Your task to perform on an android device: turn on the 24-hour format for clock Image 0: 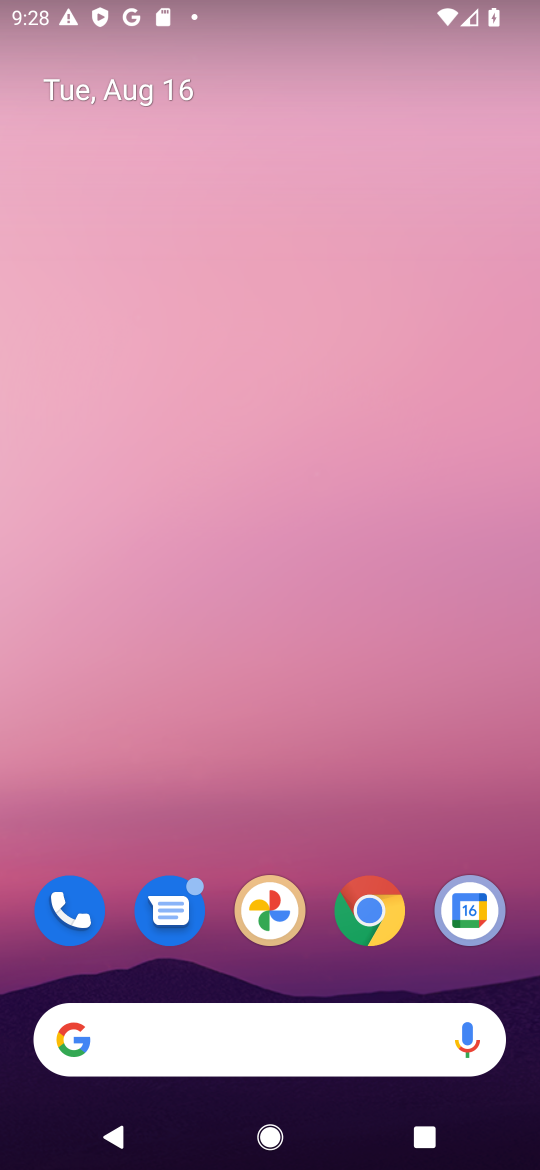
Step 0: drag from (278, 714) to (272, 0)
Your task to perform on an android device: turn on the 24-hour format for clock Image 1: 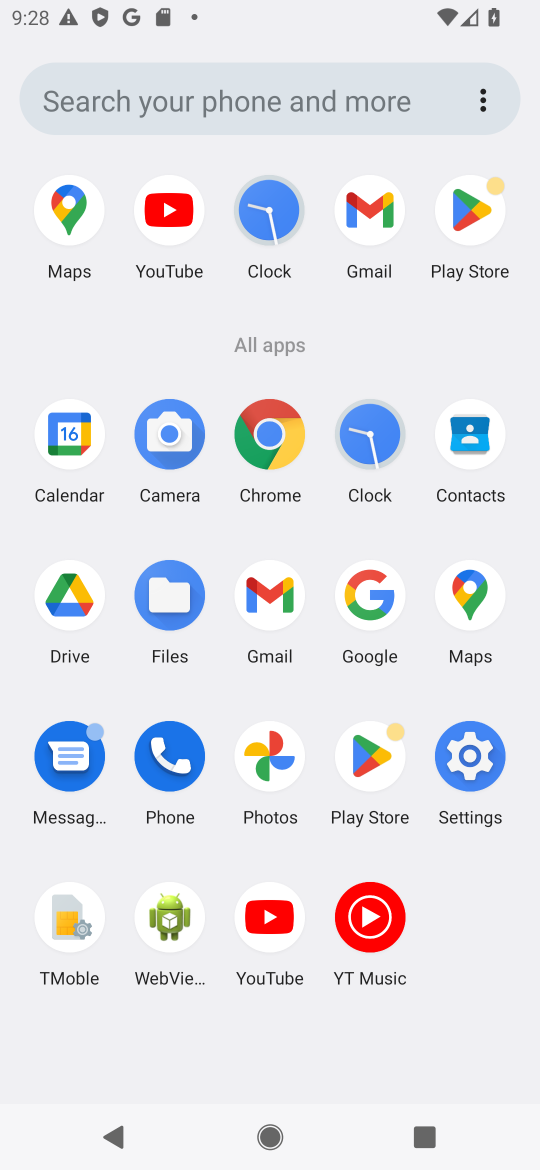
Step 1: click (272, 214)
Your task to perform on an android device: turn on the 24-hour format for clock Image 2: 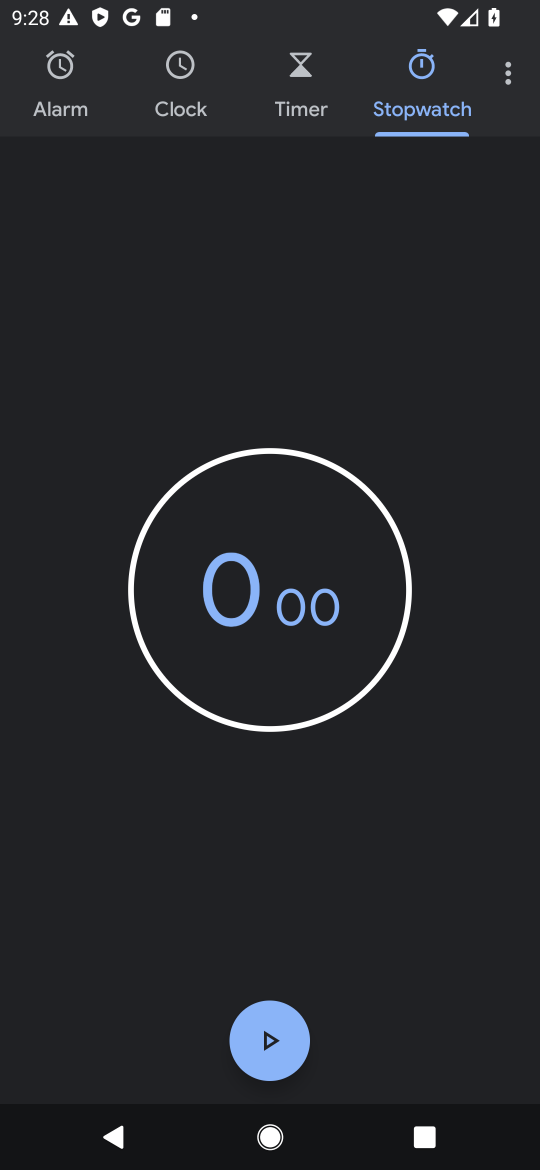
Step 2: click (512, 79)
Your task to perform on an android device: turn on the 24-hour format for clock Image 3: 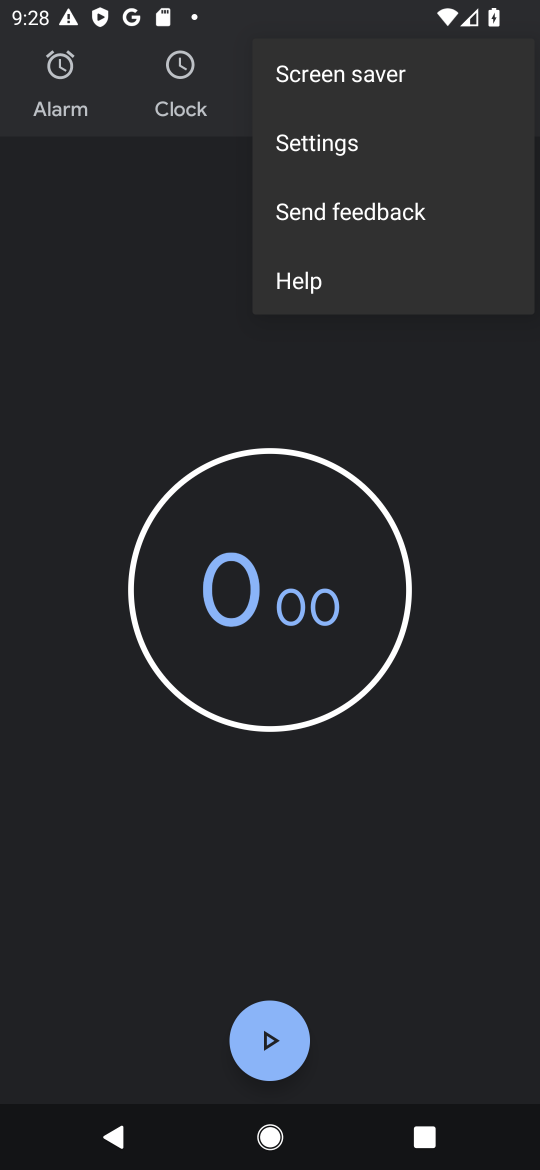
Step 3: click (371, 146)
Your task to perform on an android device: turn on the 24-hour format for clock Image 4: 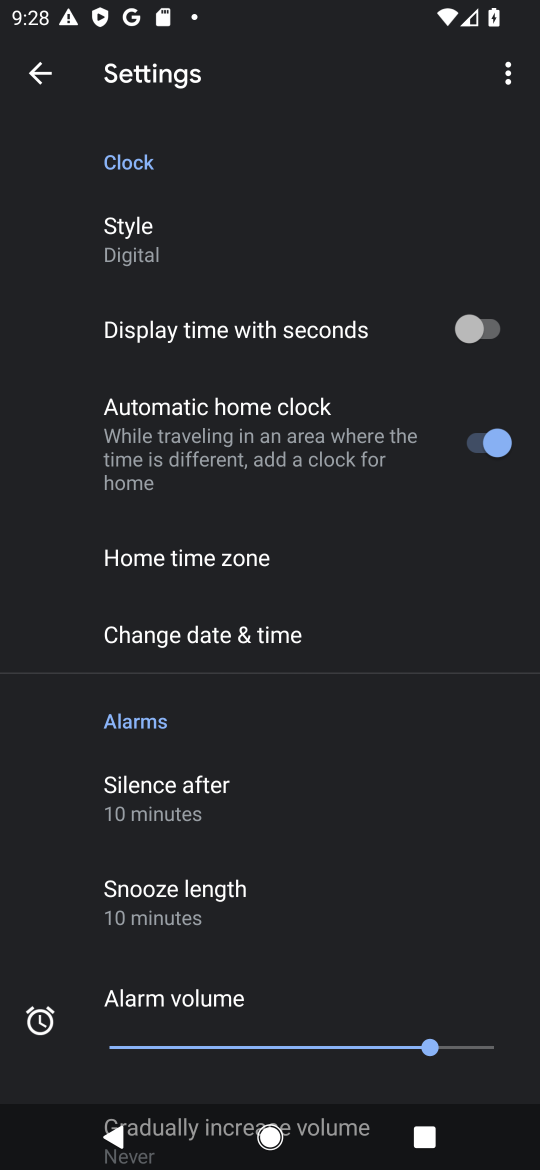
Step 4: click (321, 653)
Your task to perform on an android device: turn on the 24-hour format for clock Image 5: 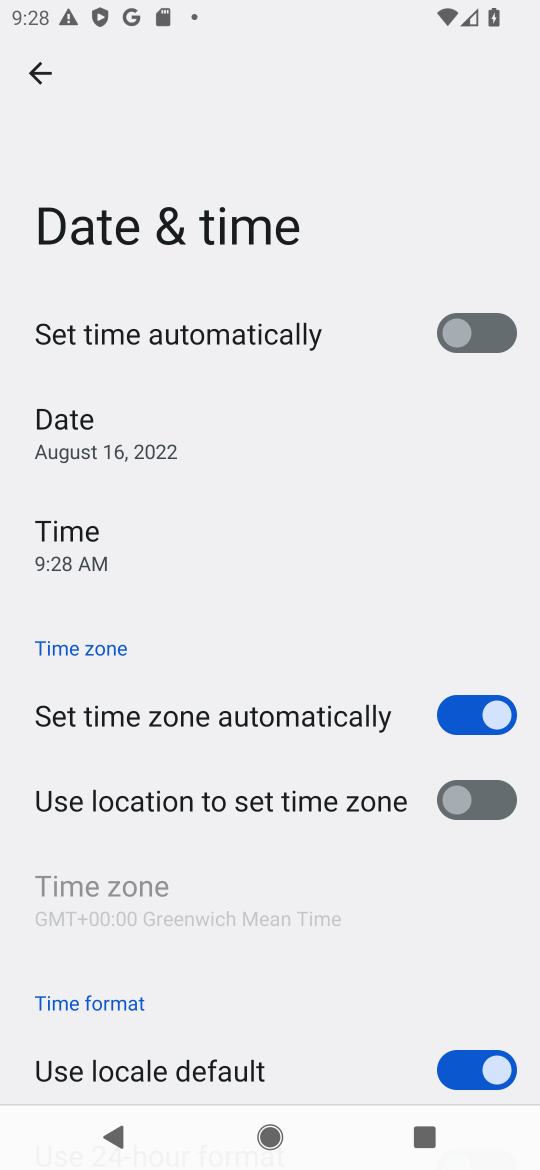
Step 5: drag from (270, 874) to (359, 399)
Your task to perform on an android device: turn on the 24-hour format for clock Image 6: 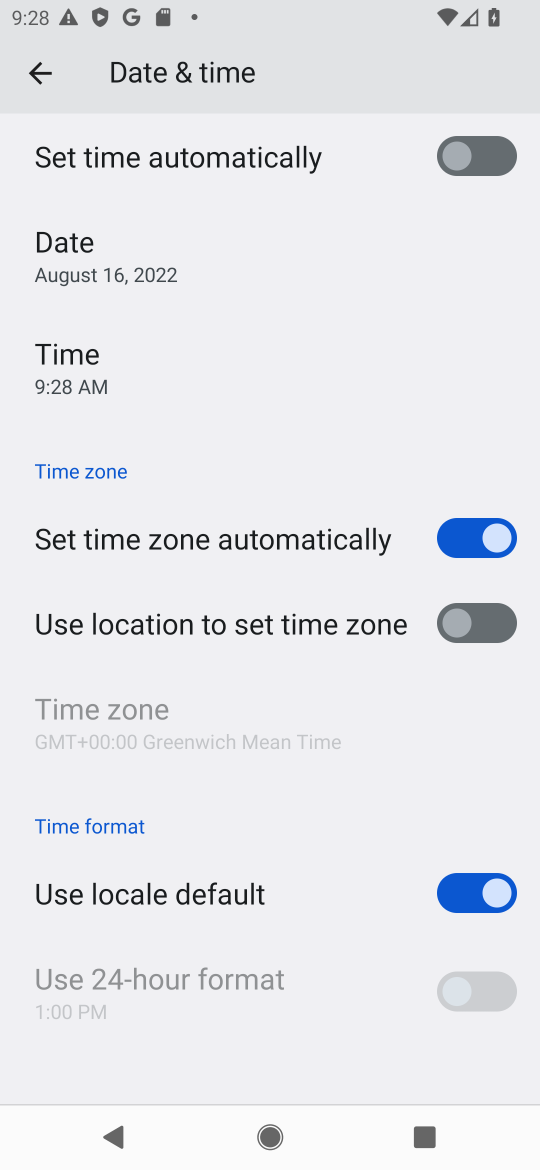
Step 6: click (464, 883)
Your task to perform on an android device: turn on the 24-hour format for clock Image 7: 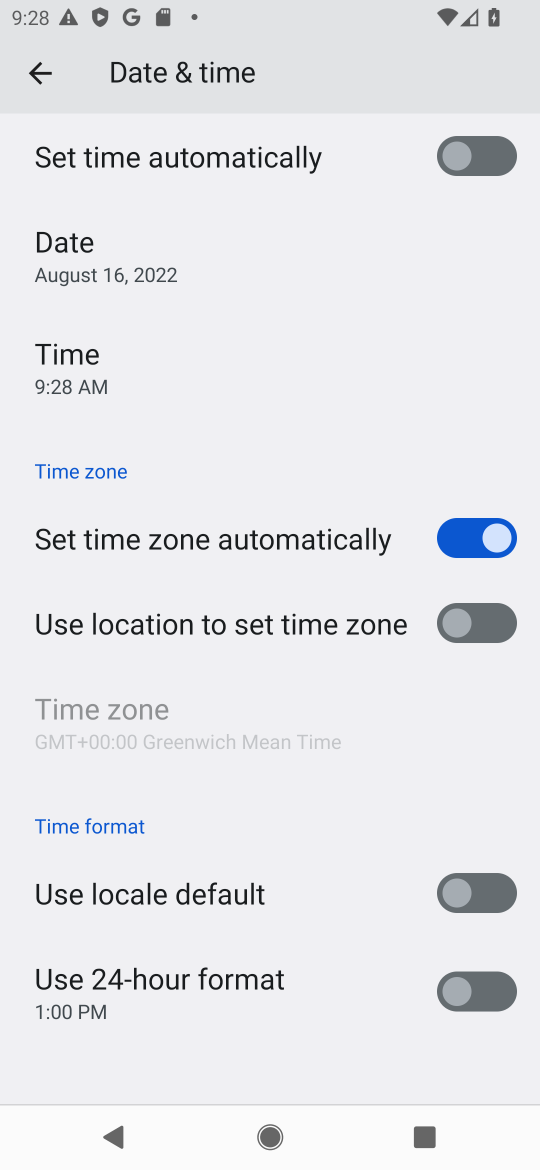
Step 7: click (475, 987)
Your task to perform on an android device: turn on the 24-hour format for clock Image 8: 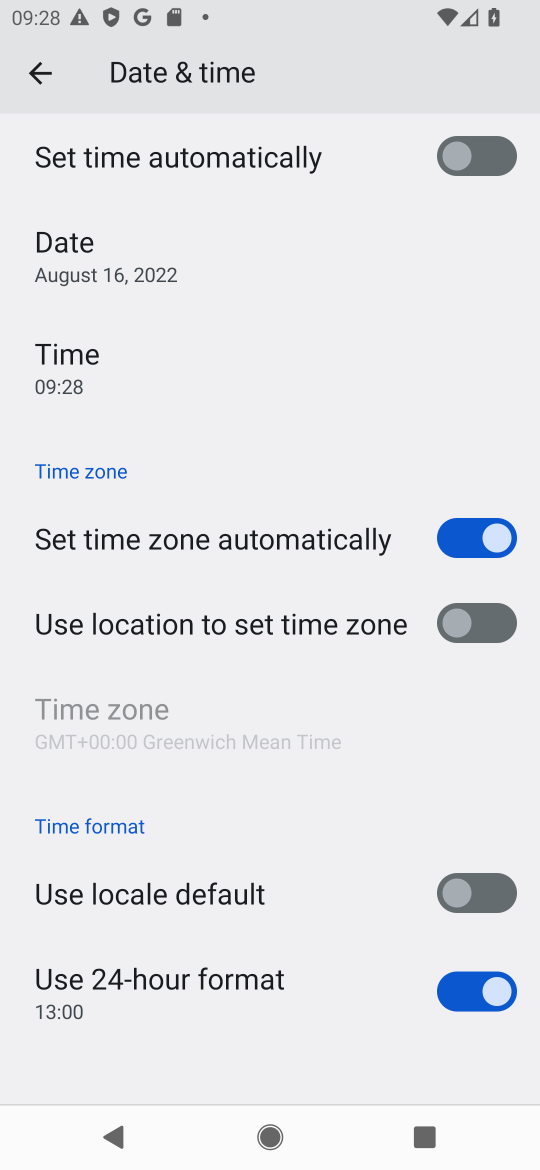
Step 8: task complete